Your task to perform on an android device: clear all cookies in the chrome app Image 0: 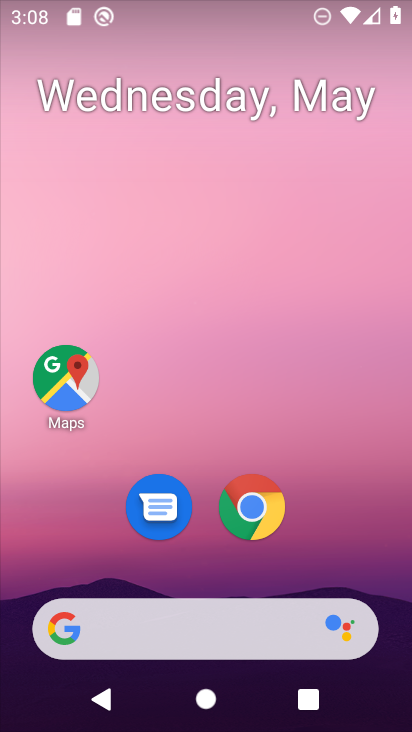
Step 0: click (251, 516)
Your task to perform on an android device: clear all cookies in the chrome app Image 1: 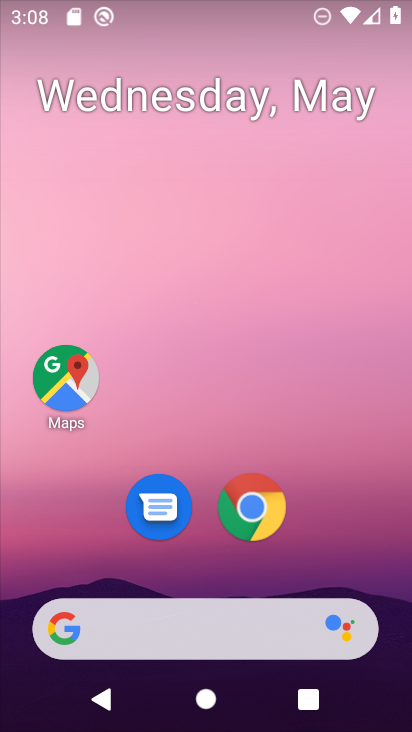
Step 1: click (259, 509)
Your task to perform on an android device: clear all cookies in the chrome app Image 2: 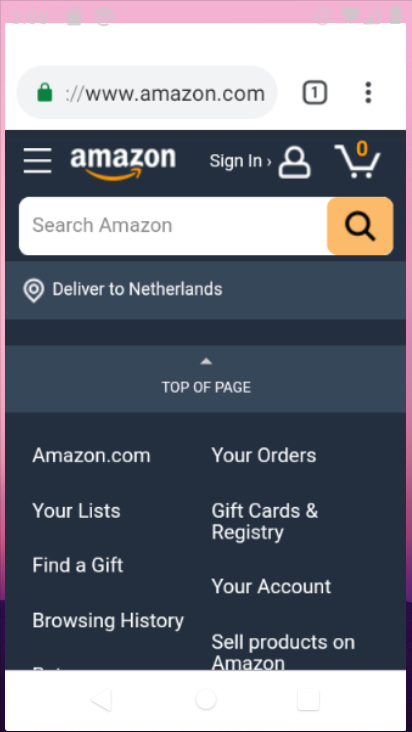
Step 2: click (259, 509)
Your task to perform on an android device: clear all cookies in the chrome app Image 3: 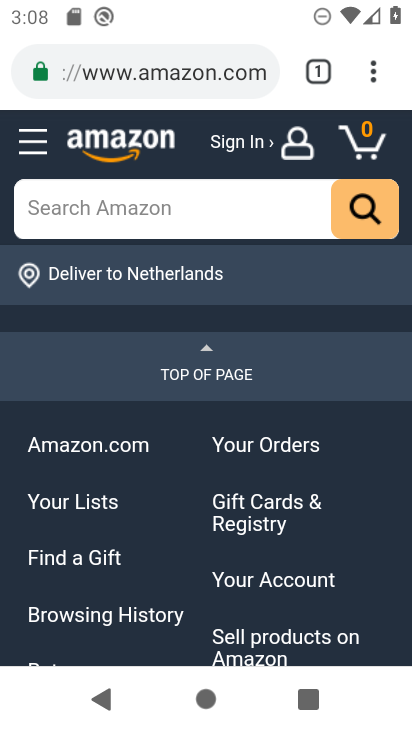
Step 3: click (381, 74)
Your task to perform on an android device: clear all cookies in the chrome app Image 4: 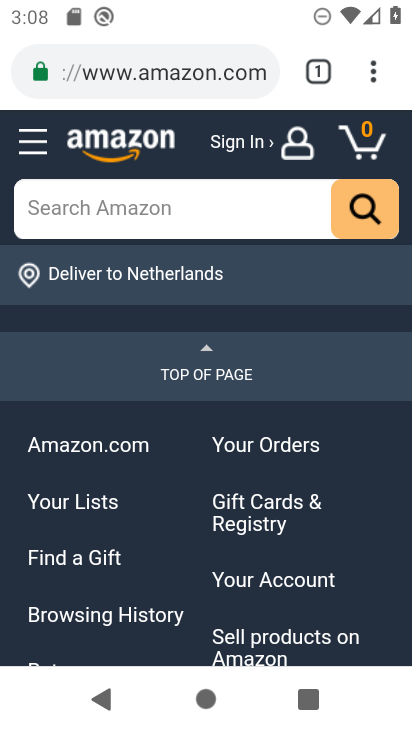
Step 4: click (372, 70)
Your task to perform on an android device: clear all cookies in the chrome app Image 5: 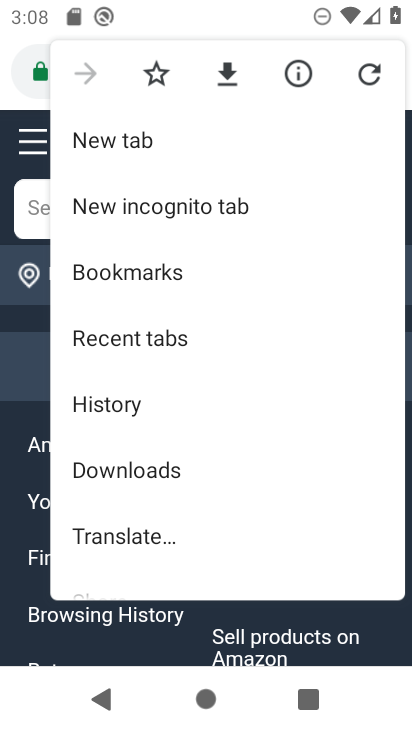
Step 5: drag from (144, 500) to (166, 336)
Your task to perform on an android device: clear all cookies in the chrome app Image 6: 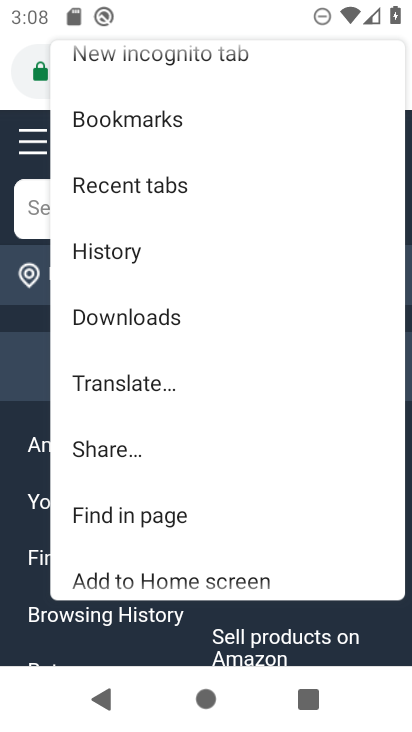
Step 6: click (106, 256)
Your task to perform on an android device: clear all cookies in the chrome app Image 7: 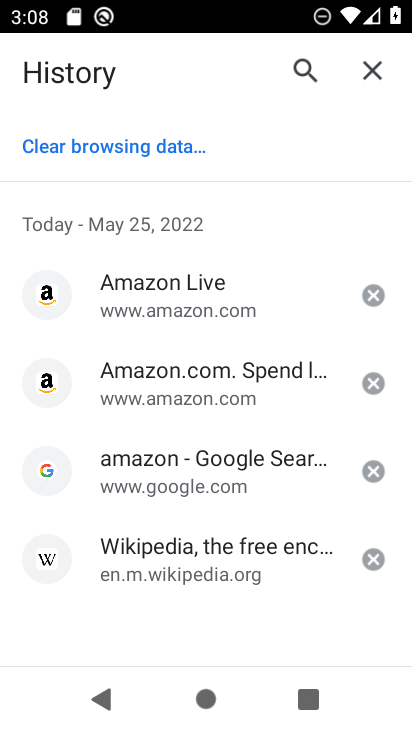
Step 7: click (118, 140)
Your task to perform on an android device: clear all cookies in the chrome app Image 8: 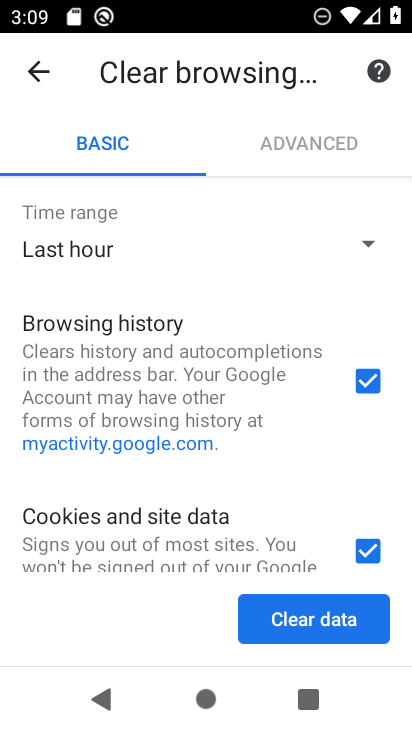
Step 8: click (347, 400)
Your task to perform on an android device: clear all cookies in the chrome app Image 9: 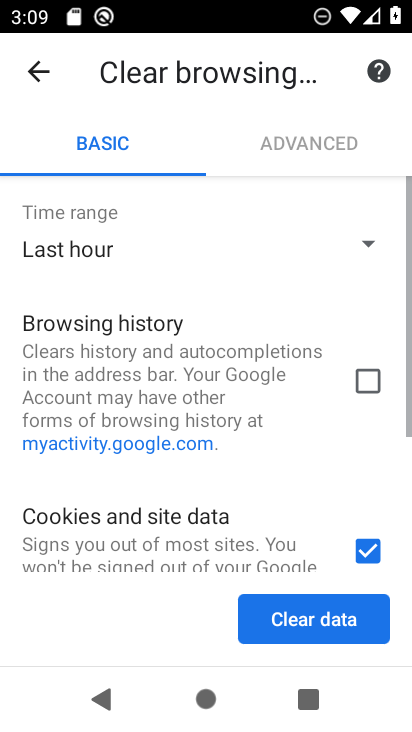
Step 9: drag from (265, 500) to (288, 267)
Your task to perform on an android device: clear all cookies in the chrome app Image 10: 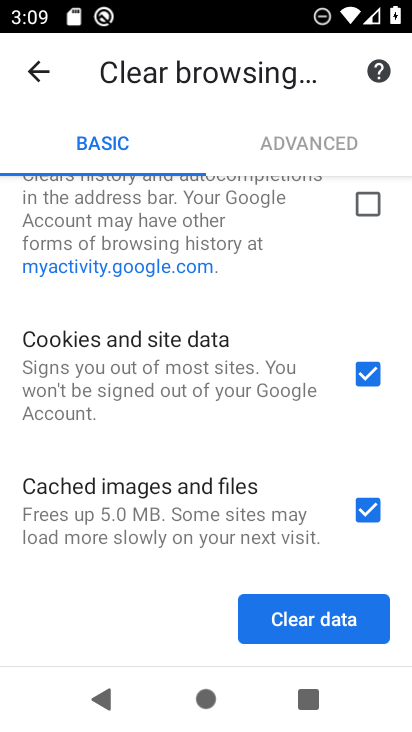
Step 10: click (372, 526)
Your task to perform on an android device: clear all cookies in the chrome app Image 11: 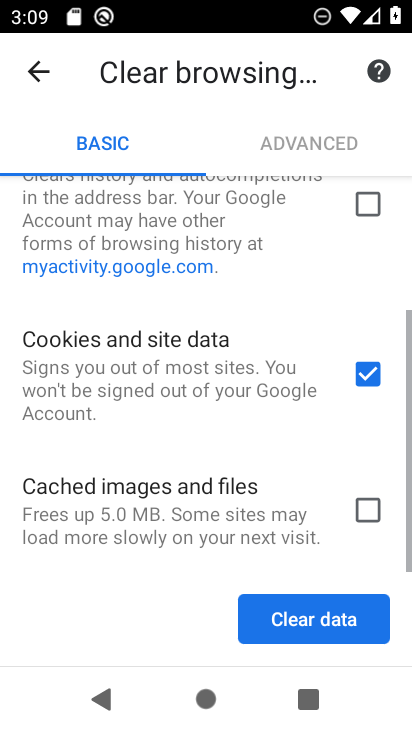
Step 11: click (347, 588)
Your task to perform on an android device: clear all cookies in the chrome app Image 12: 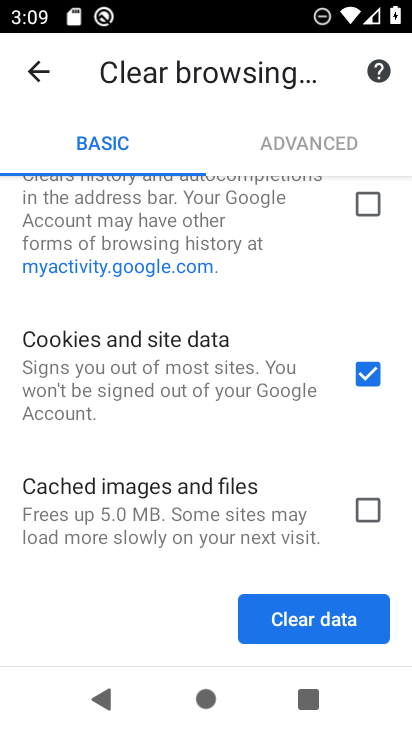
Step 12: click (334, 614)
Your task to perform on an android device: clear all cookies in the chrome app Image 13: 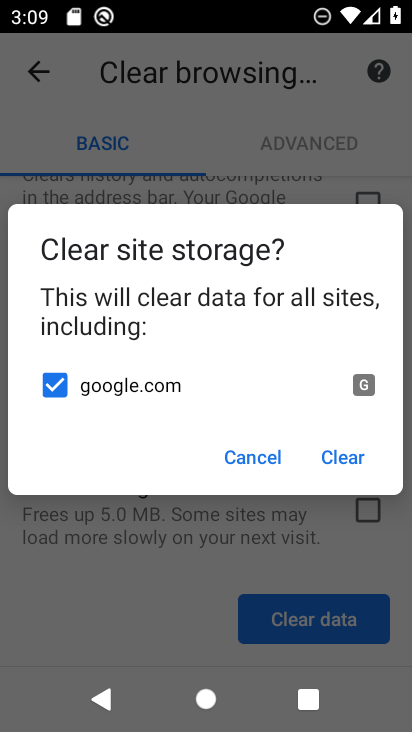
Step 13: click (352, 468)
Your task to perform on an android device: clear all cookies in the chrome app Image 14: 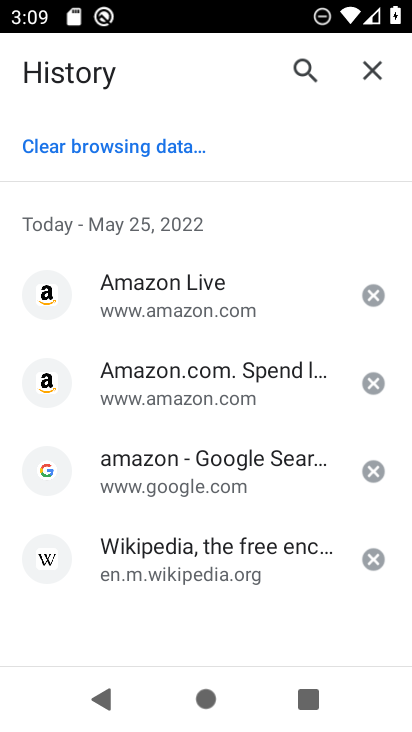
Step 14: task complete